Your task to perform on an android device: see sites visited before in the chrome app Image 0: 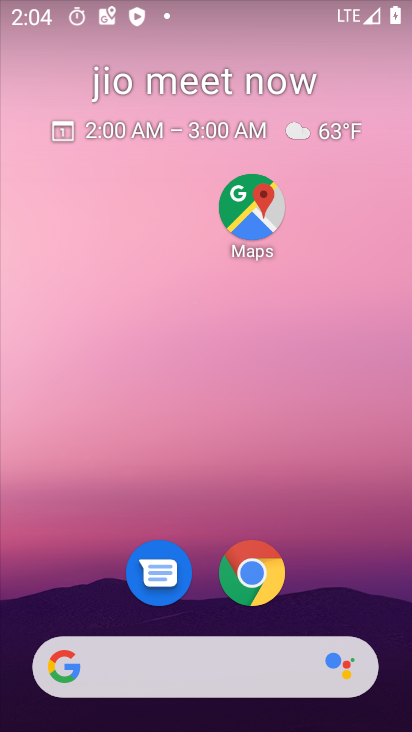
Step 0: click (237, 563)
Your task to perform on an android device: see sites visited before in the chrome app Image 1: 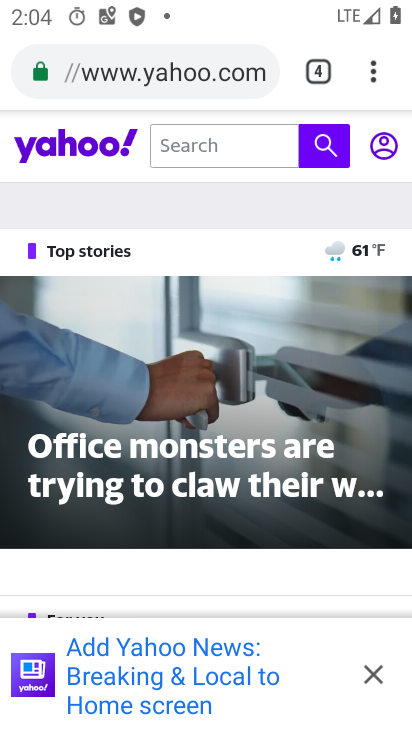
Step 1: click (326, 69)
Your task to perform on an android device: see sites visited before in the chrome app Image 2: 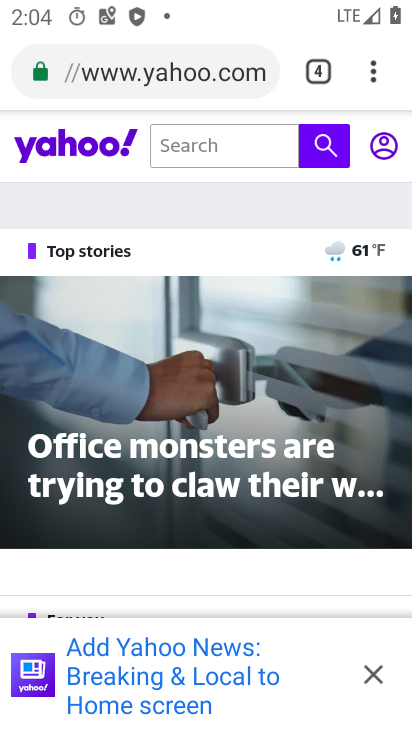
Step 2: click (322, 77)
Your task to perform on an android device: see sites visited before in the chrome app Image 3: 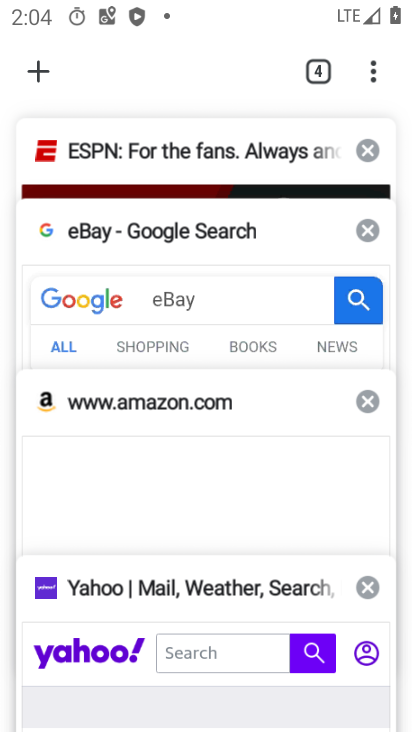
Step 3: click (365, 151)
Your task to perform on an android device: see sites visited before in the chrome app Image 4: 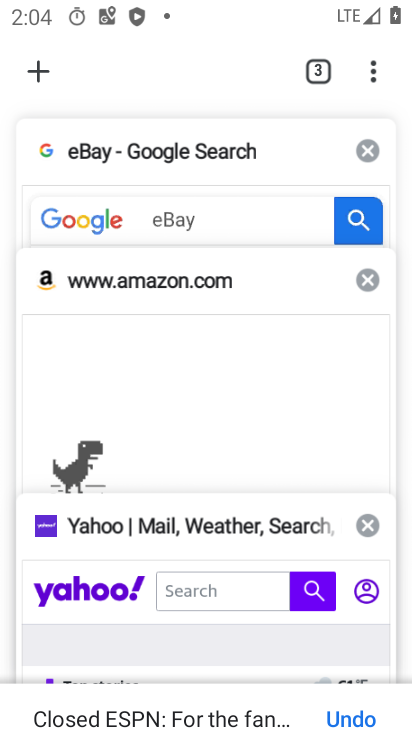
Step 4: click (365, 151)
Your task to perform on an android device: see sites visited before in the chrome app Image 5: 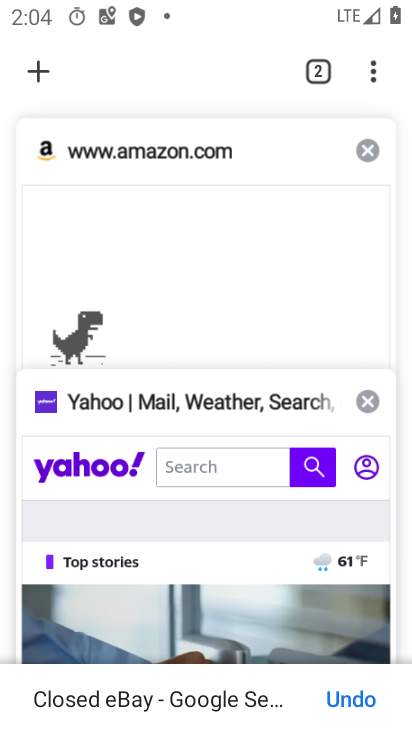
Step 5: click (365, 150)
Your task to perform on an android device: see sites visited before in the chrome app Image 6: 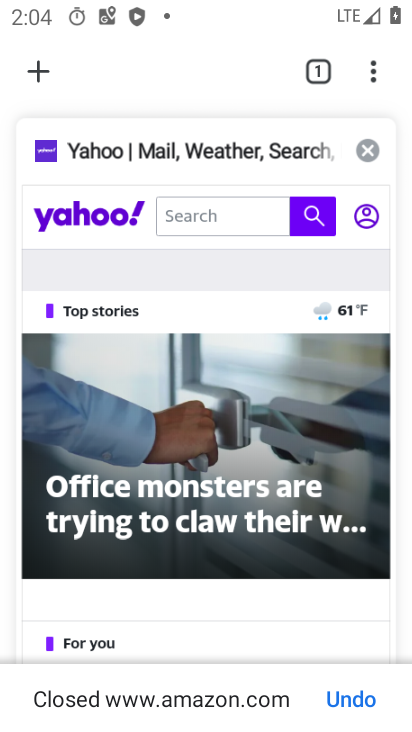
Step 6: click (365, 150)
Your task to perform on an android device: see sites visited before in the chrome app Image 7: 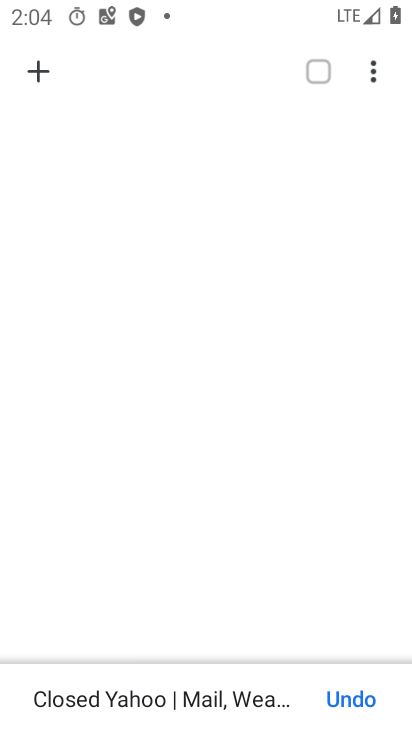
Step 7: click (44, 64)
Your task to perform on an android device: see sites visited before in the chrome app Image 8: 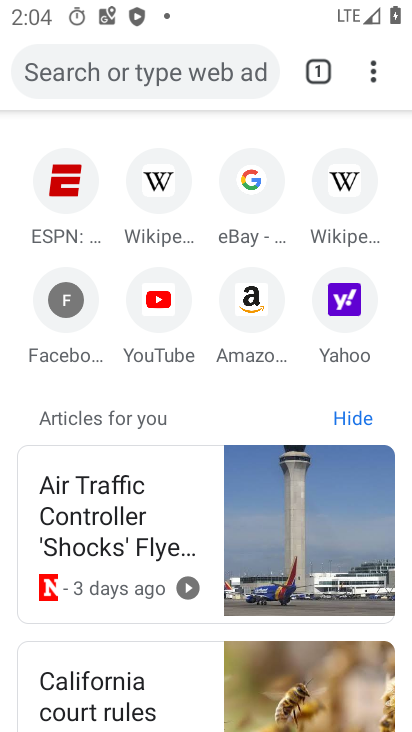
Step 8: click (376, 69)
Your task to perform on an android device: see sites visited before in the chrome app Image 9: 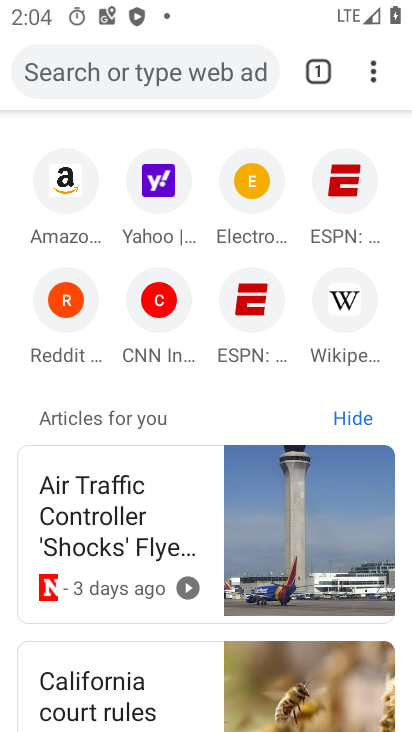
Step 9: click (372, 71)
Your task to perform on an android device: see sites visited before in the chrome app Image 10: 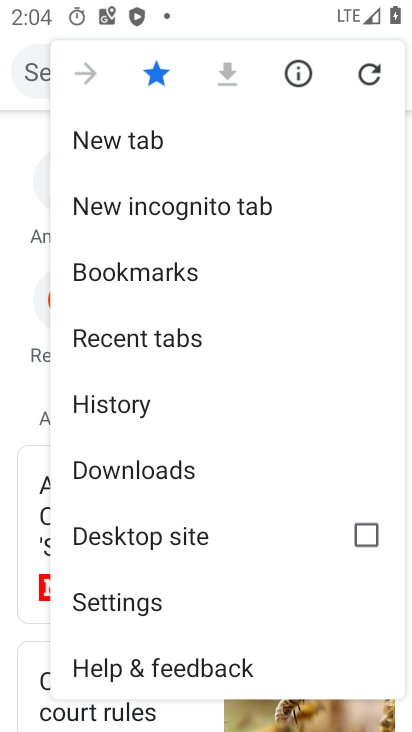
Step 10: click (92, 398)
Your task to perform on an android device: see sites visited before in the chrome app Image 11: 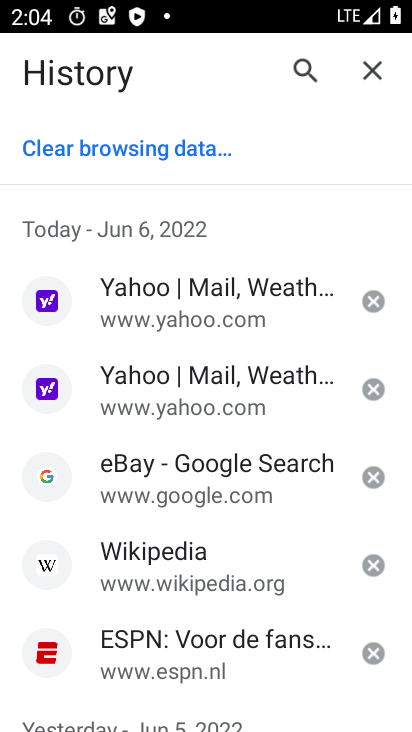
Step 11: task complete